Your task to perform on an android device: set an alarm Image 0: 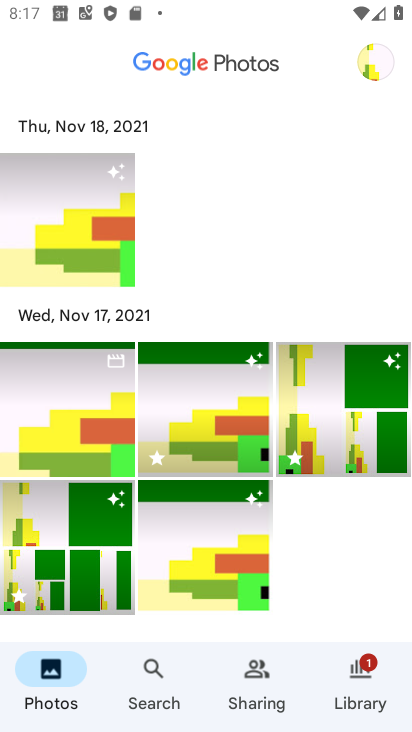
Step 0: drag from (319, 590) to (360, 213)
Your task to perform on an android device: set an alarm Image 1: 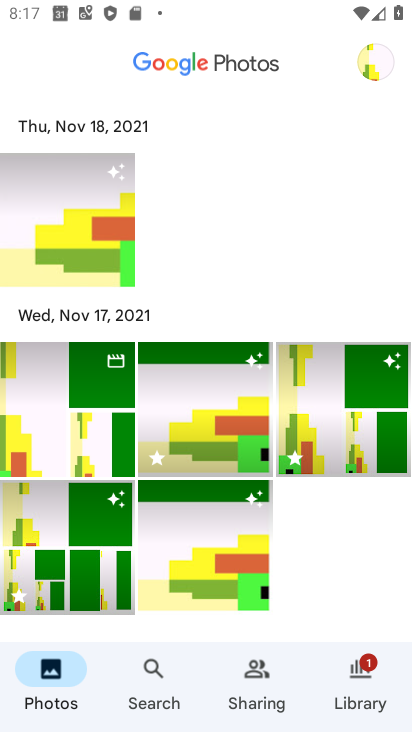
Step 1: drag from (306, 542) to (338, 246)
Your task to perform on an android device: set an alarm Image 2: 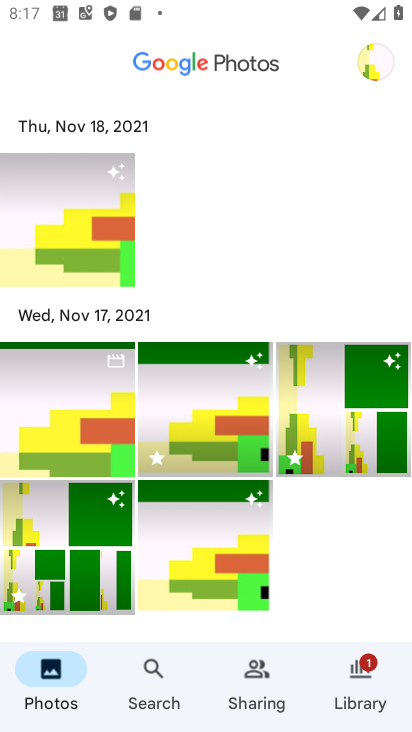
Step 2: drag from (305, 573) to (316, 300)
Your task to perform on an android device: set an alarm Image 3: 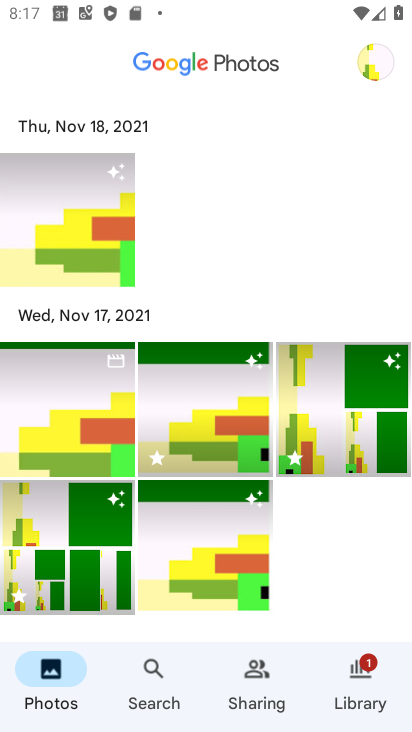
Step 3: drag from (303, 549) to (311, 382)
Your task to perform on an android device: set an alarm Image 4: 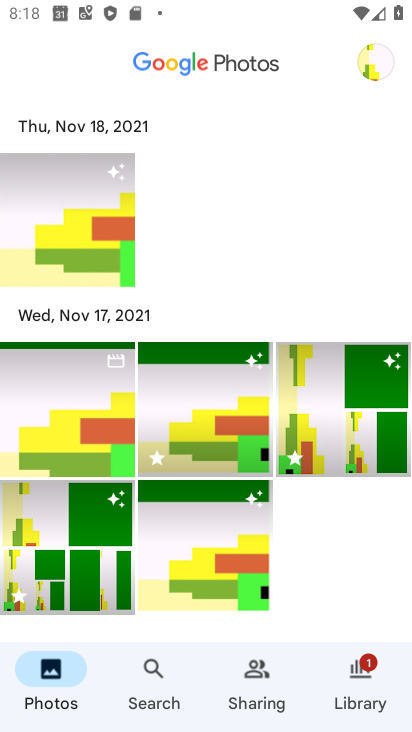
Step 4: drag from (297, 537) to (308, 300)
Your task to perform on an android device: set an alarm Image 5: 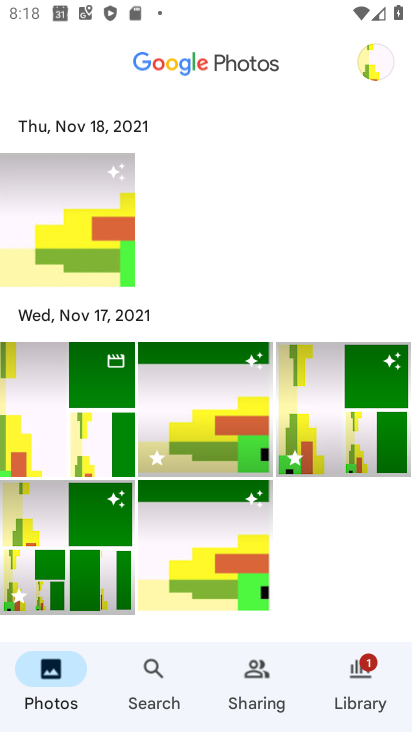
Step 5: drag from (258, 165) to (328, 562)
Your task to perform on an android device: set an alarm Image 6: 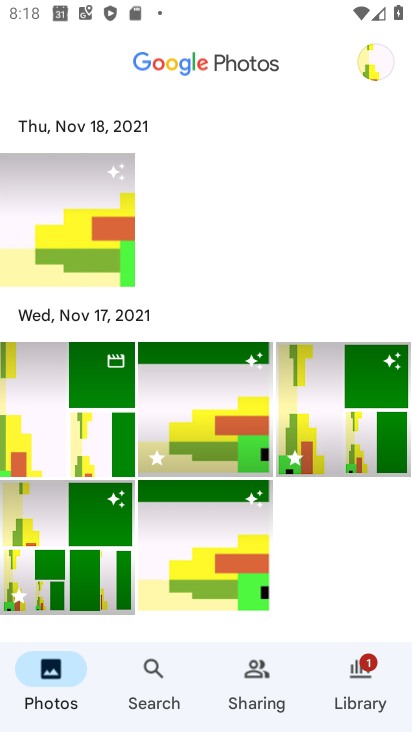
Step 6: press home button
Your task to perform on an android device: set an alarm Image 7: 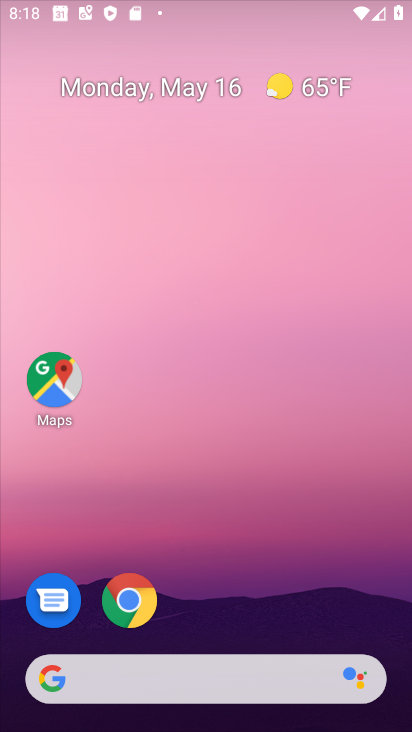
Step 7: drag from (161, 593) to (290, 90)
Your task to perform on an android device: set an alarm Image 8: 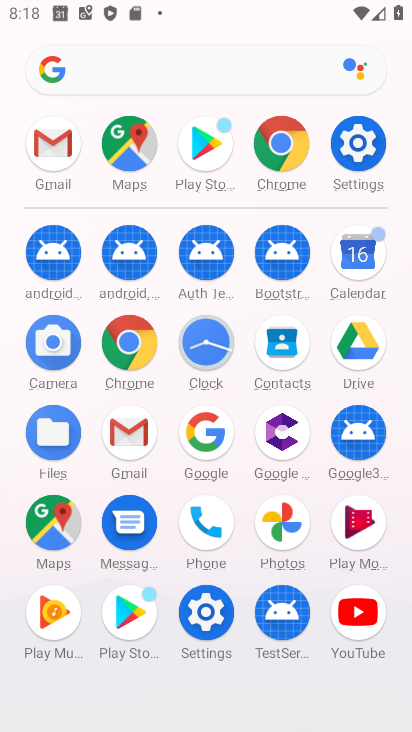
Step 8: click (200, 341)
Your task to perform on an android device: set an alarm Image 9: 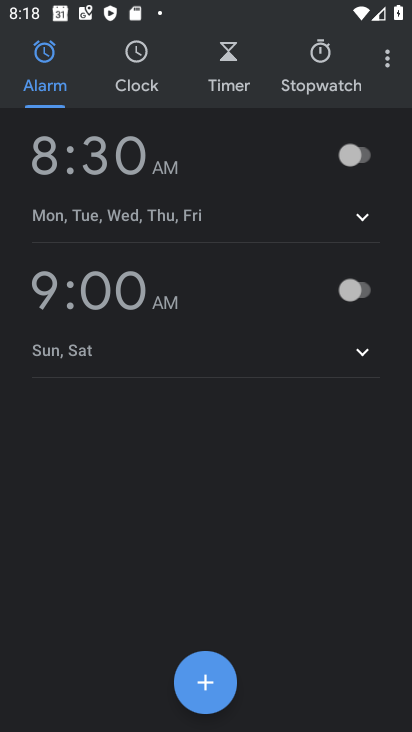
Step 9: click (378, 69)
Your task to perform on an android device: set an alarm Image 10: 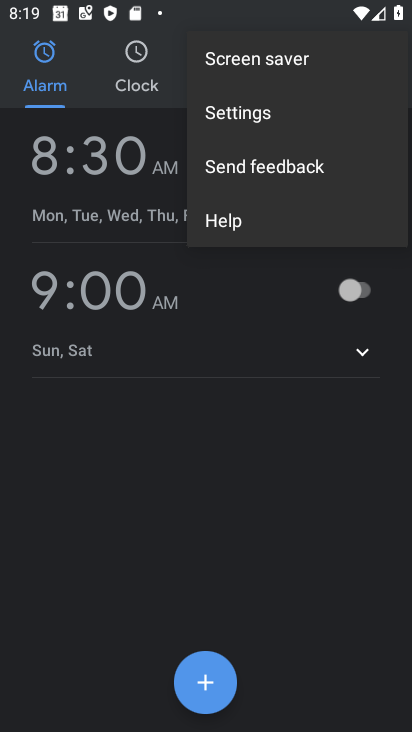
Step 10: click (67, 71)
Your task to perform on an android device: set an alarm Image 11: 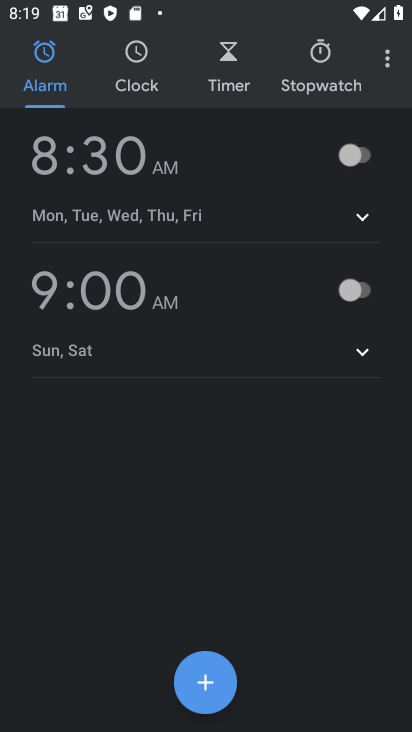
Step 11: click (355, 148)
Your task to perform on an android device: set an alarm Image 12: 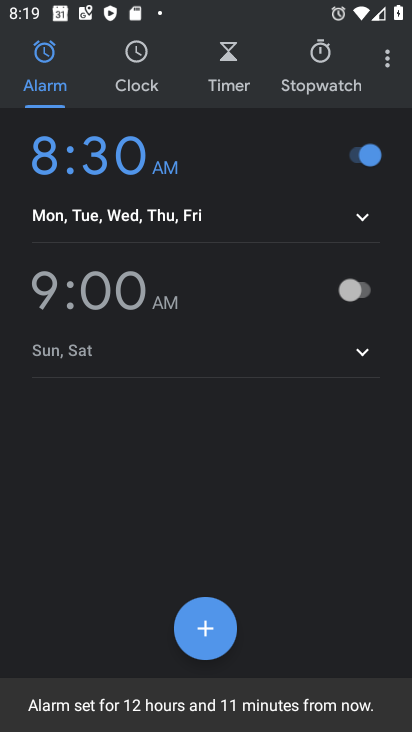
Step 12: task complete